Your task to perform on an android device: set an alarm Image 0: 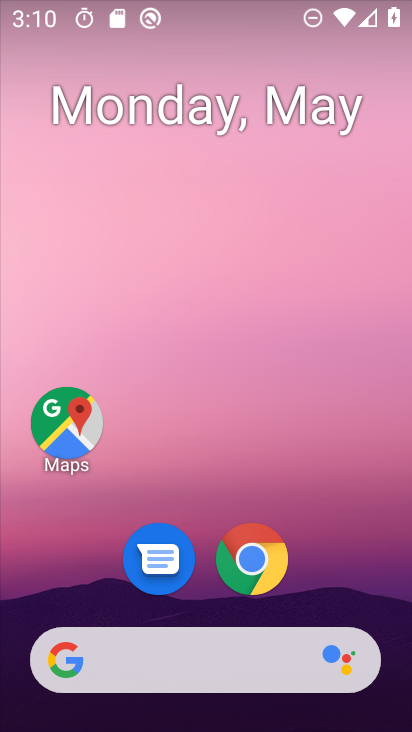
Step 0: click (274, 266)
Your task to perform on an android device: set an alarm Image 1: 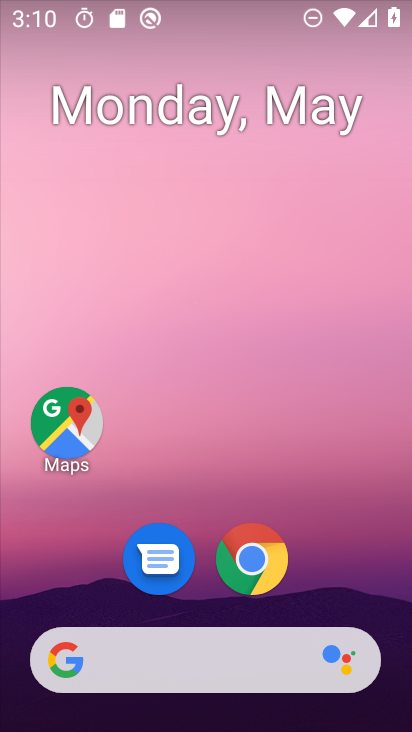
Step 1: drag from (210, 593) to (226, 301)
Your task to perform on an android device: set an alarm Image 2: 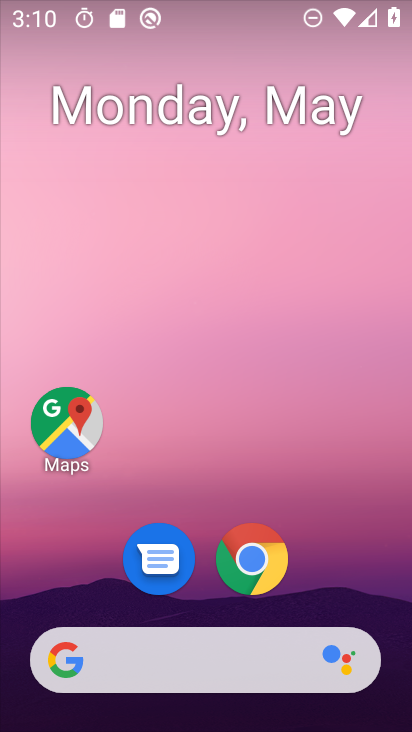
Step 2: drag from (203, 585) to (291, 132)
Your task to perform on an android device: set an alarm Image 3: 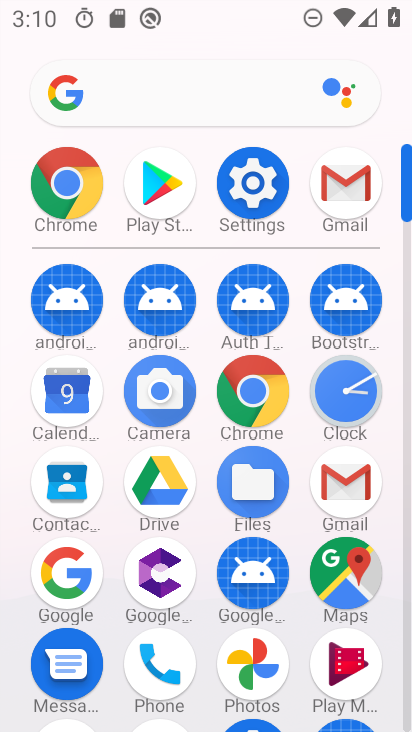
Step 3: click (333, 373)
Your task to perform on an android device: set an alarm Image 4: 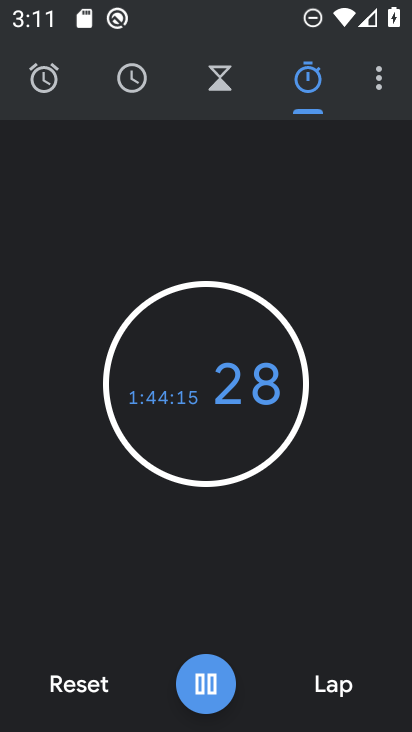
Step 4: click (28, 74)
Your task to perform on an android device: set an alarm Image 5: 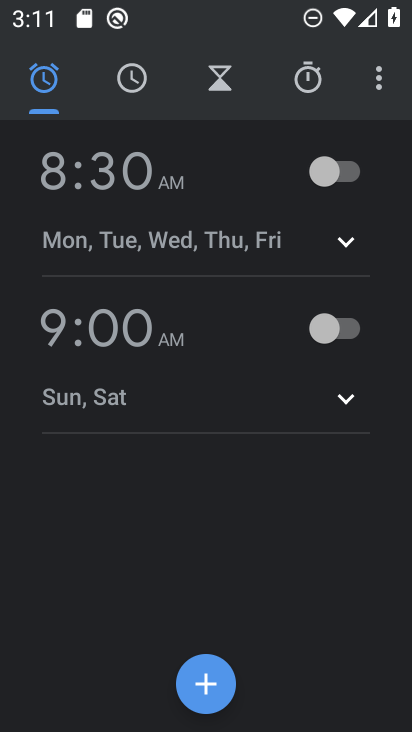
Step 5: click (134, 91)
Your task to perform on an android device: set an alarm Image 6: 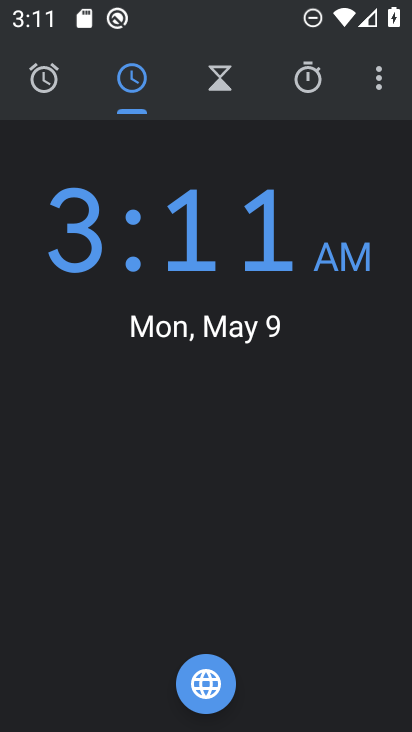
Step 6: click (58, 69)
Your task to perform on an android device: set an alarm Image 7: 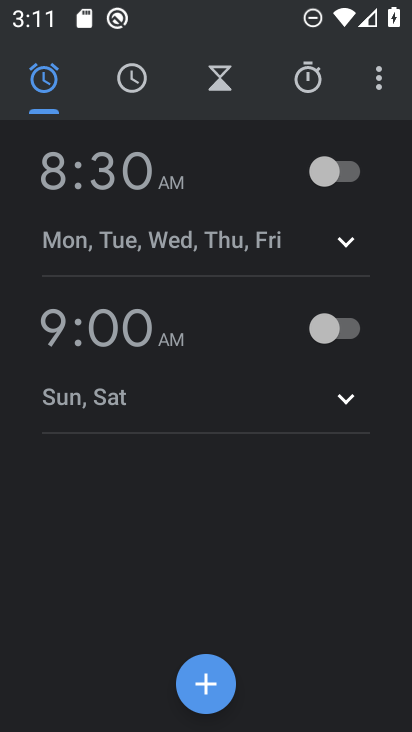
Step 7: click (344, 159)
Your task to perform on an android device: set an alarm Image 8: 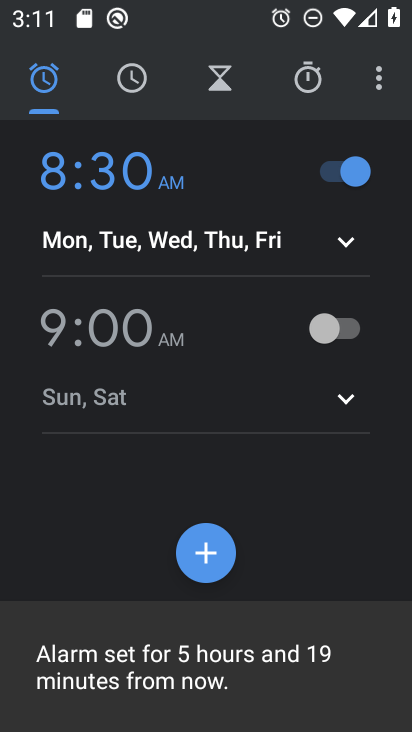
Step 8: task complete